Your task to perform on an android device: toggle location history Image 0: 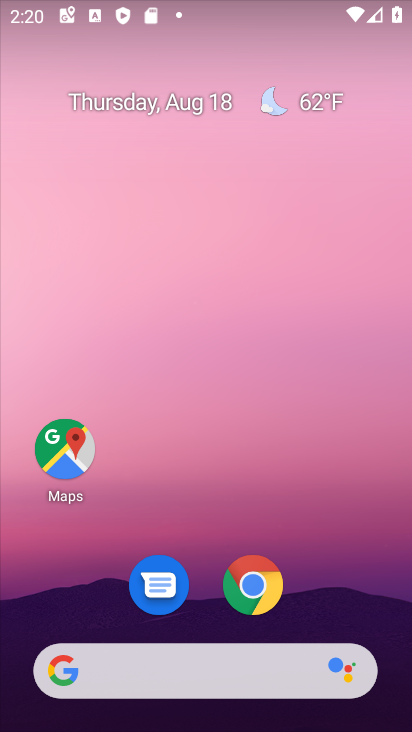
Step 0: drag from (210, 508) to (239, 0)
Your task to perform on an android device: toggle location history Image 1: 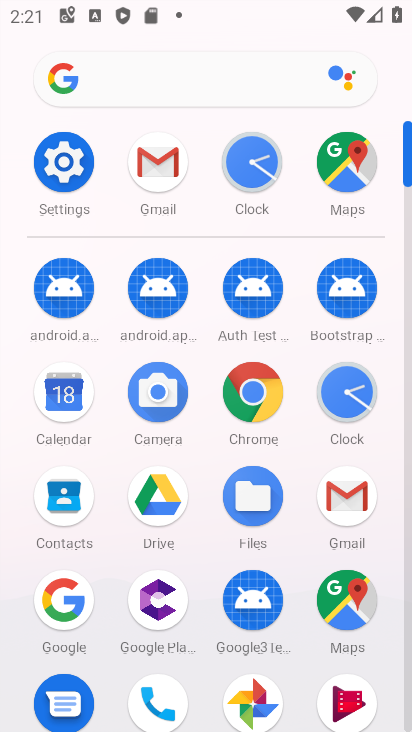
Step 1: click (61, 162)
Your task to perform on an android device: toggle location history Image 2: 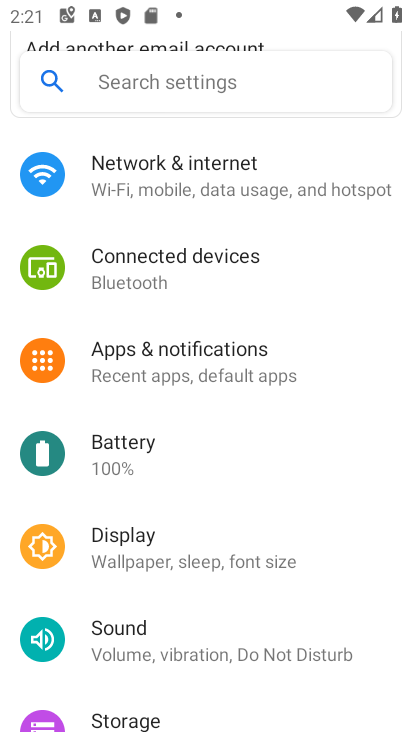
Step 2: drag from (233, 597) to (229, 27)
Your task to perform on an android device: toggle location history Image 3: 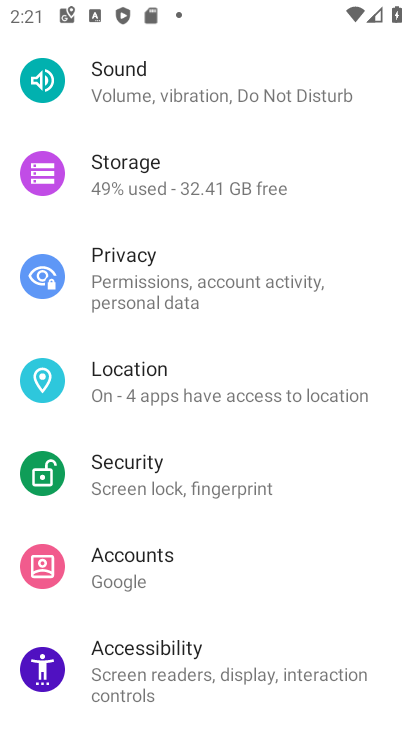
Step 3: click (205, 384)
Your task to perform on an android device: toggle location history Image 4: 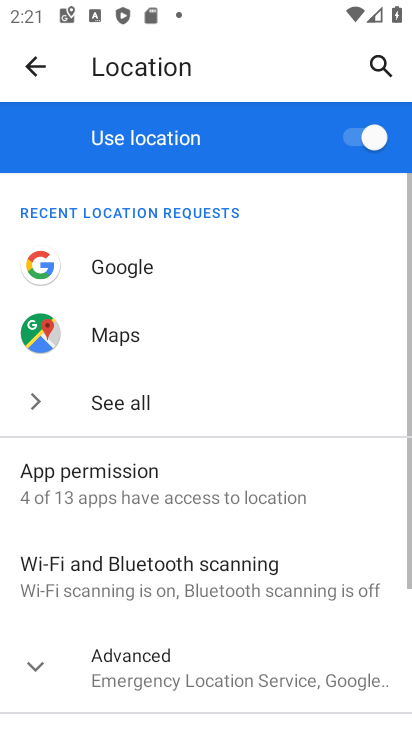
Step 4: click (35, 665)
Your task to perform on an android device: toggle location history Image 5: 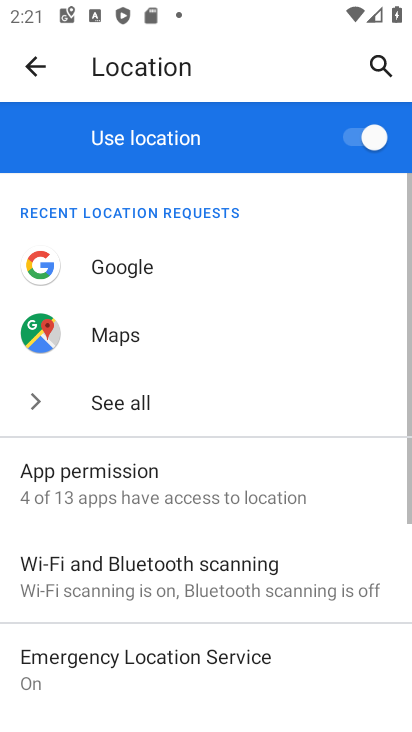
Step 5: drag from (238, 402) to (254, 0)
Your task to perform on an android device: toggle location history Image 6: 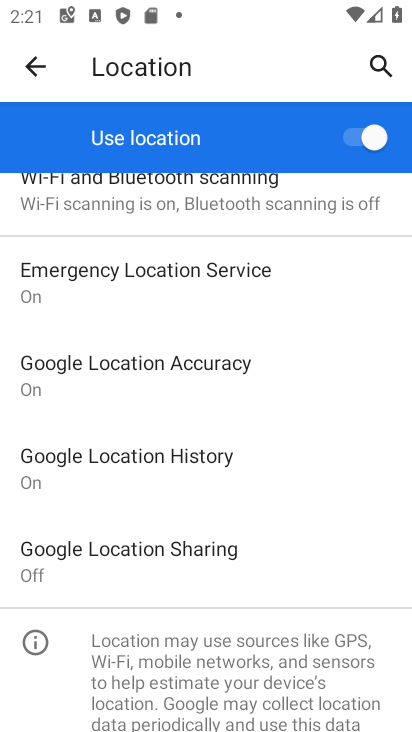
Step 6: click (187, 465)
Your task to perform on an android device: toggle location history Image 7: 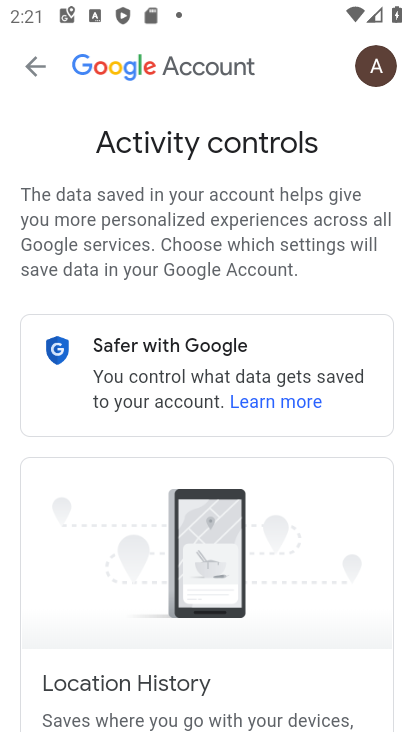
Step 7: drag from (282, 484) to (293, 0)
Your task to perform on an android device: toggle location history Image 8: 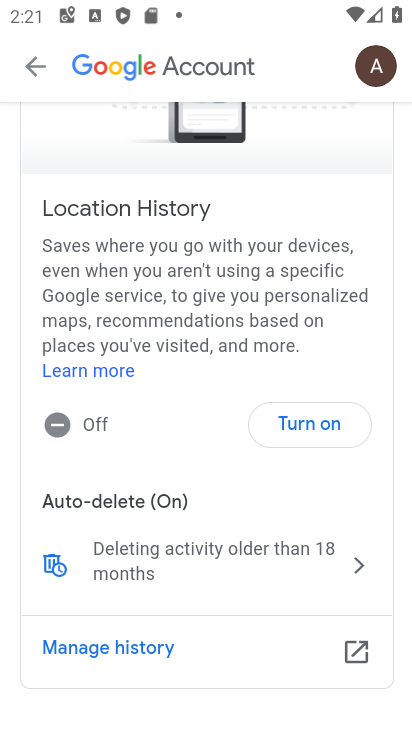
Step 8: click (311, 418)
Your task to perform on an android device: toggle location history Image 9: 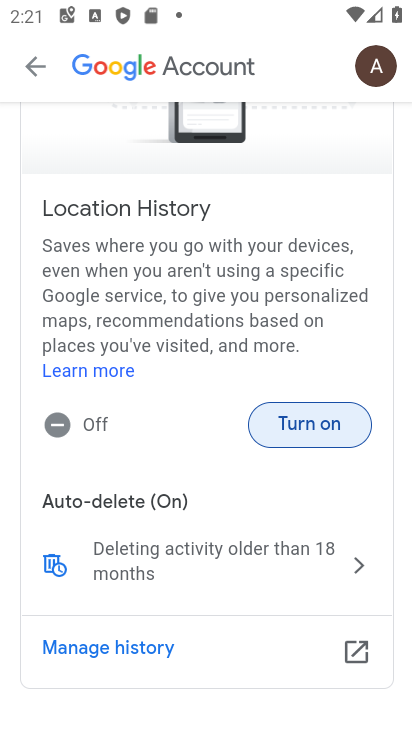
Step 9: click (311, 418)
Your task to perform on an android device: toggle location history Image 10: 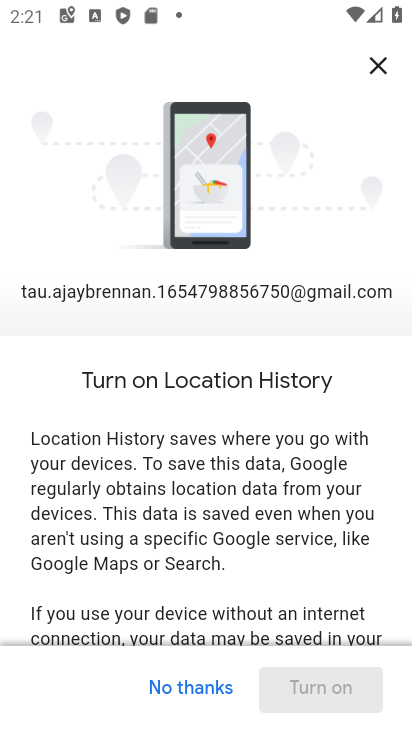
Step 10: drag from (247, 549) to (289, 3)
Your task to perform on an android device: toggle location history Image 11: 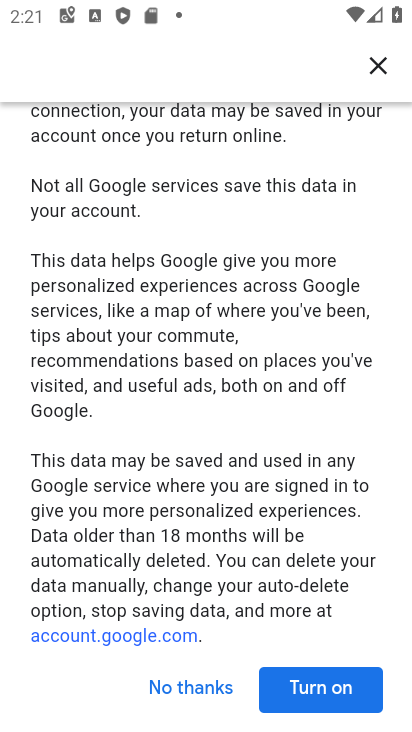
Step 11: click (342, 683)
Your task to perform on an android device: toggle location history Image 12: 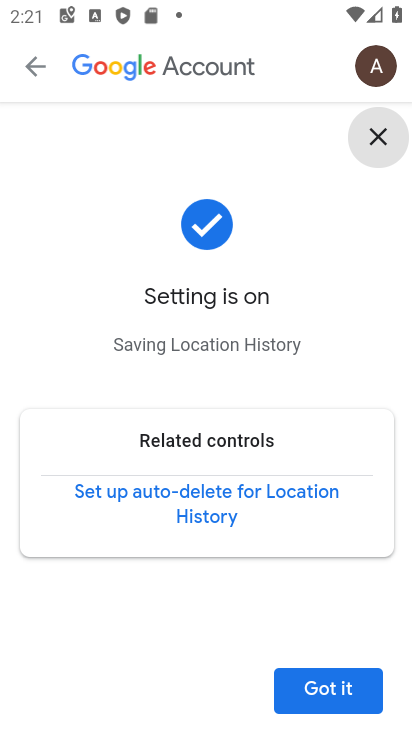
Step 12: click (342, 683)
Your task to perform on an android device: toggle location history Image 13: 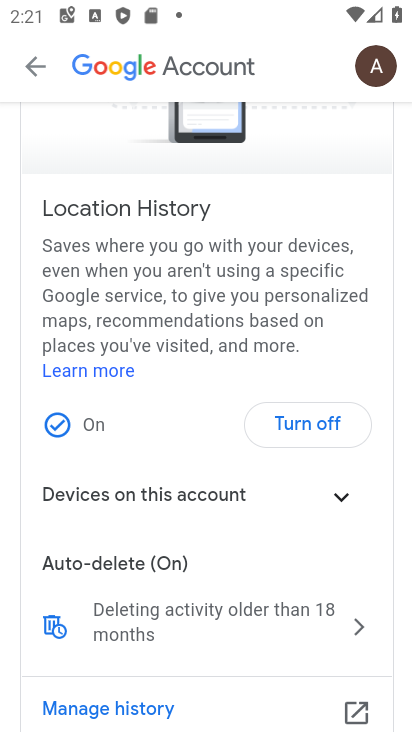
Step 13: task complete